Your task to perform on an android device: Open my contact list Image 0: 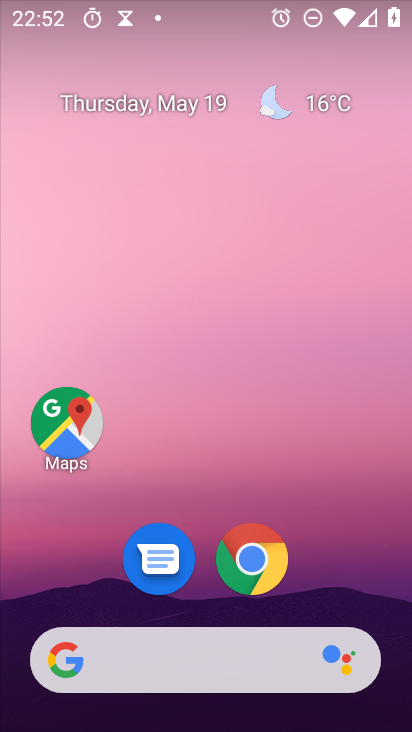
Step 0: drag from (193, 726) to (189, 124)
Your task to perform on an android device: Open my contact list Image 1: 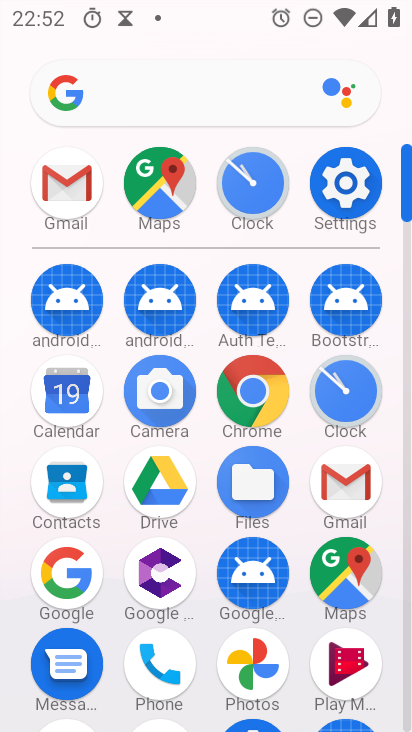
Step 1: click (72, 505)
Your task to perform on an android device: Open my contact list Image 2: 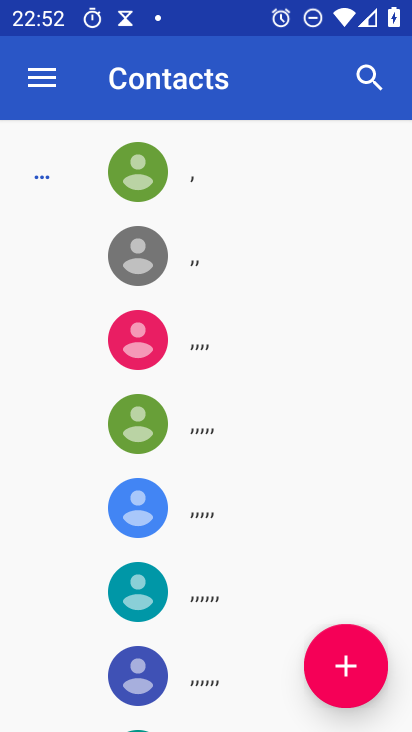
Step 2: task complete